Your task to perform on an android device: make emails show in primary in the gmail app Image 0: 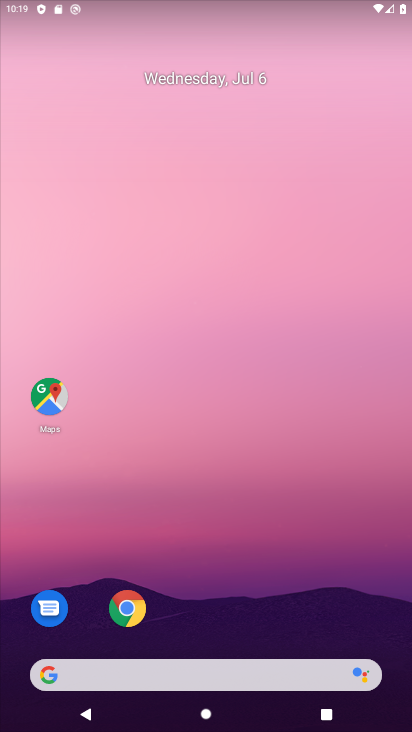
Step 0: drag from (196, 660) to (140, 103)
Your task to perform on an android device: make emails show in primary in the gmail app Image 1: 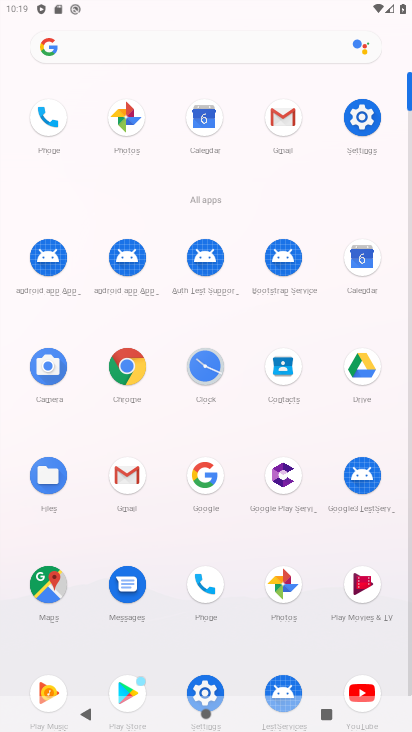
Step 1: click (137, 474)
Your task to perform on an android device: make emails show in primary in the gmail app Image 2: 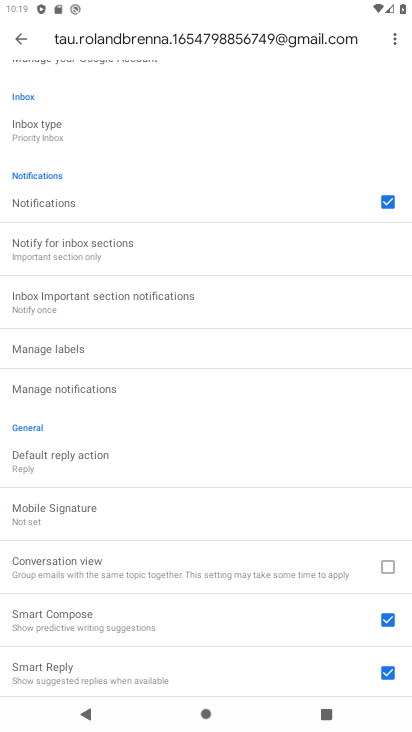
Step 2: task complete